Your task to perform on an android device: Go to wifi settings Image 0: 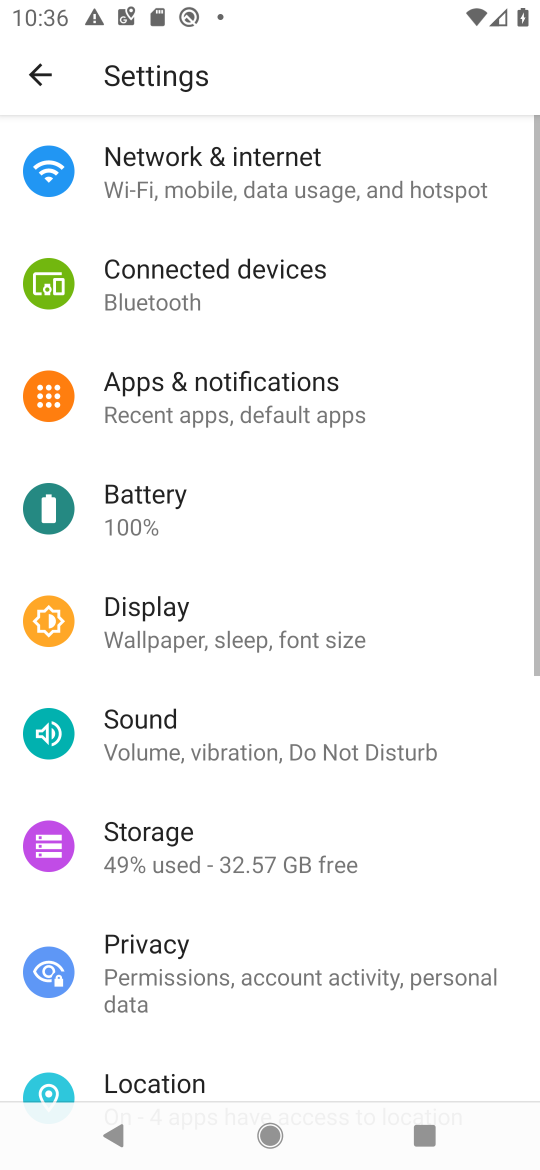
Step 0: click (204, 184)
Your task to perform on an android device: Go to wifi settings Image 1: 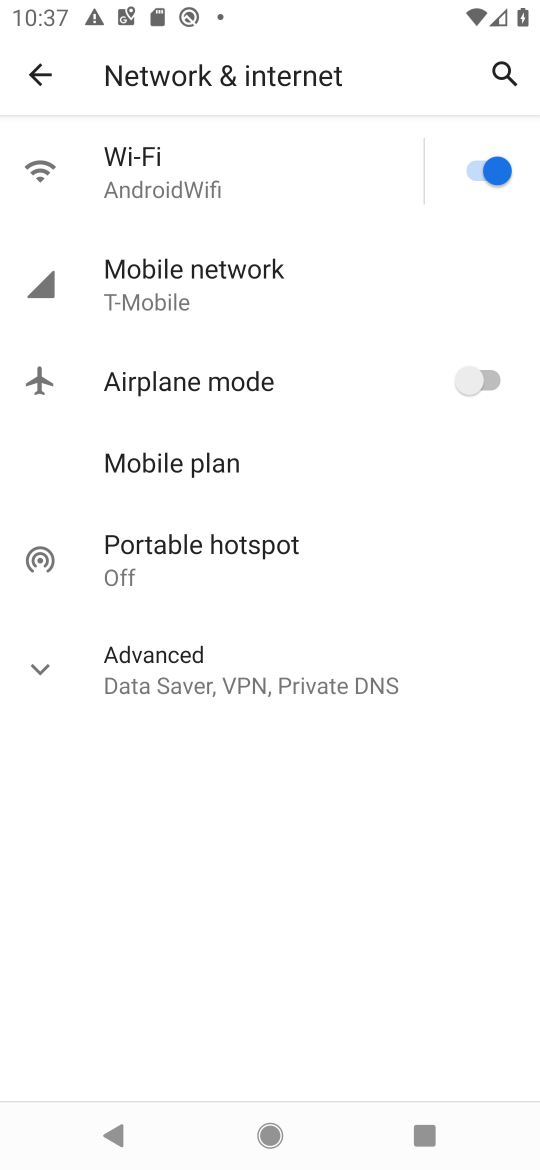
Step 1: task complete